Your task to perform on an android device: set default search engine in the chrome app Image 0: 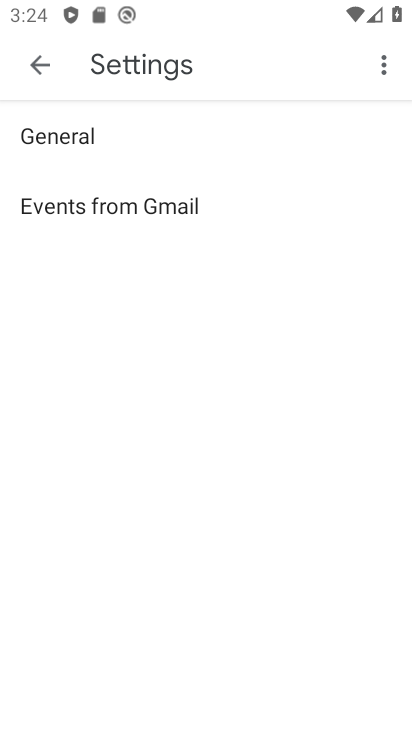
Step 0: press home button
Your task to perform on an android device: set default search engine in the chrome app Image 1: 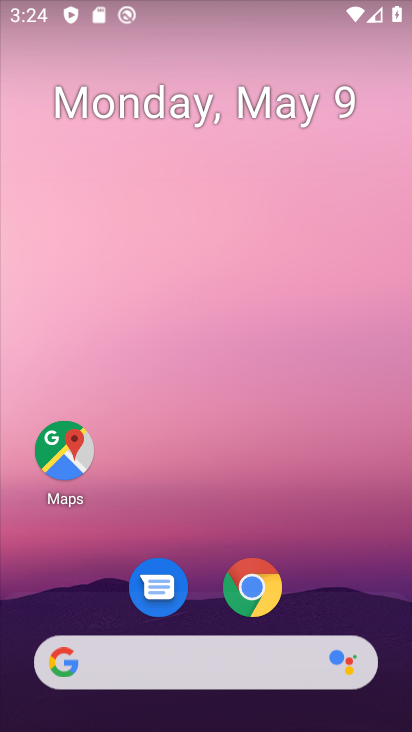
Step 1: click (258, 582)
Your task to perform on an android device: set default search engine in the chrome app Image 2: 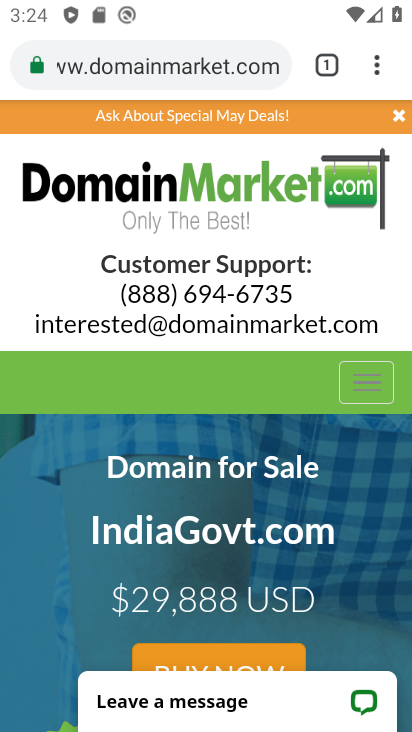
Step 2: click (375, 61)
Your task to perform on an android device: set default search engine in the chrome app Image 3: 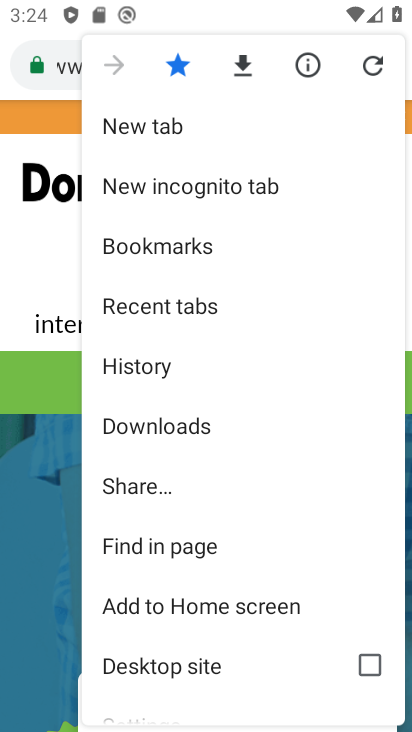
Step 3: drag from (309, 659) to (367, 248)
Your task to perform on an android device: set default search engine in the chrome app Image 4: 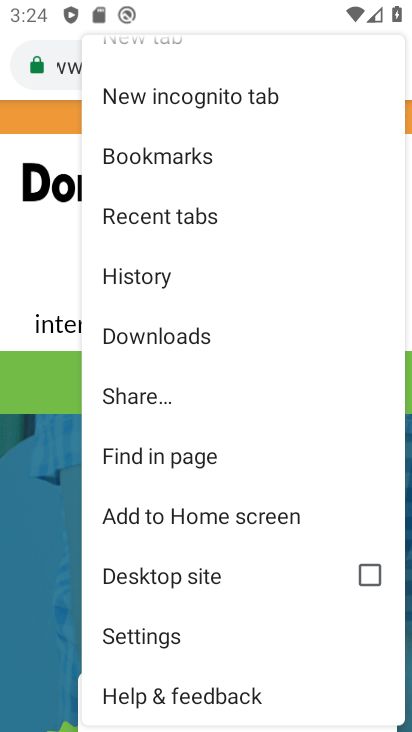
Step 4: click (123, 638)
Your task to perform on an android device: set default search engine in the chrome app Image 5: 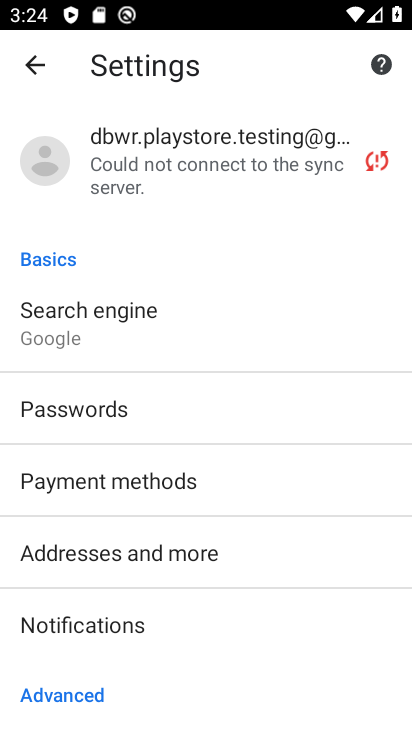
Step 5: click (56, 315)
Your task to perform on an android device: set default search engine in the chrome app Image 6: 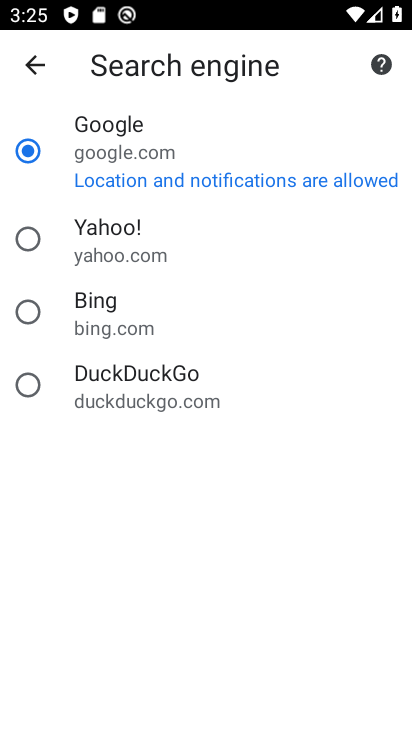
Step 6: task complete